Your task to perform on an android device: turn on javascript in the chrome app Image 0: 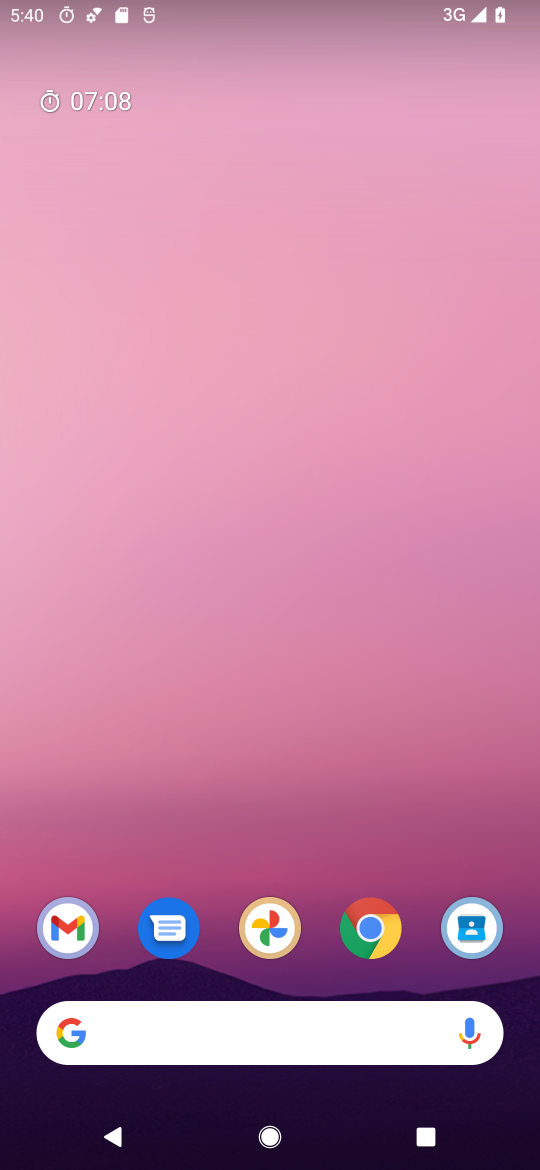
Step 0: click (374, 931)
Your task to perform on an android device: turn on javascript in the chrome app Image 1: 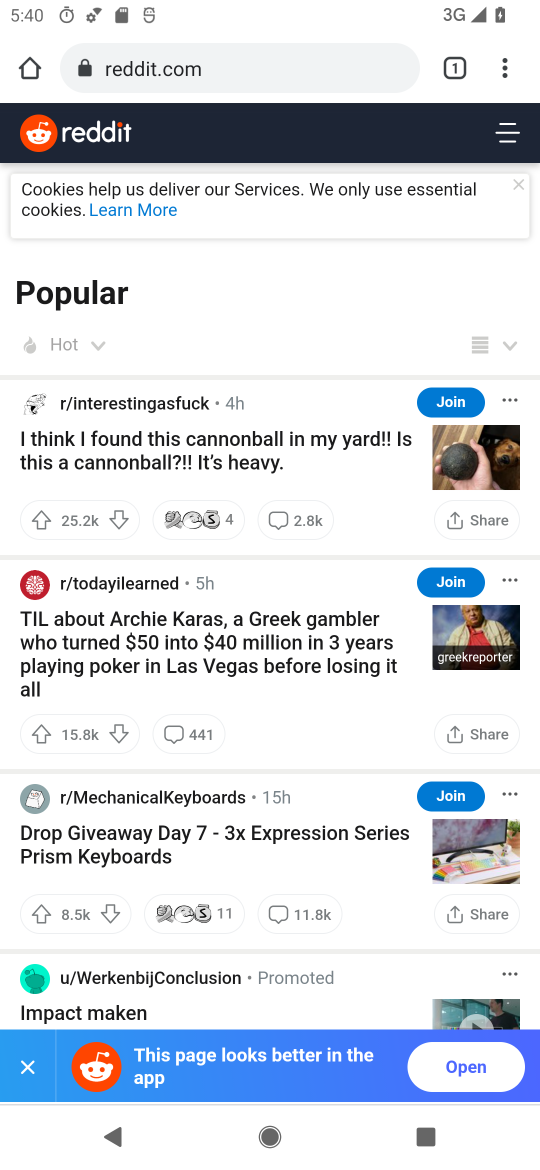
Step 1: click (505, 71)
Your task to perform on an android device: turn on javascript in the chrome app Image 2: 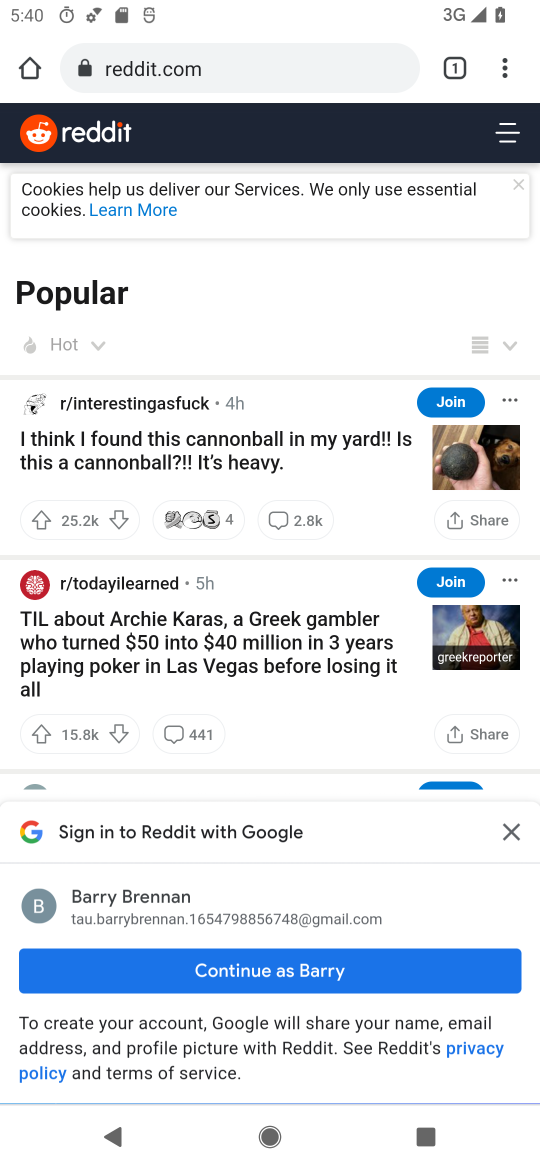
Step 2: click (306, 978)
Your task to perform on an android device: turn on javascript in the chrome app Image 3: 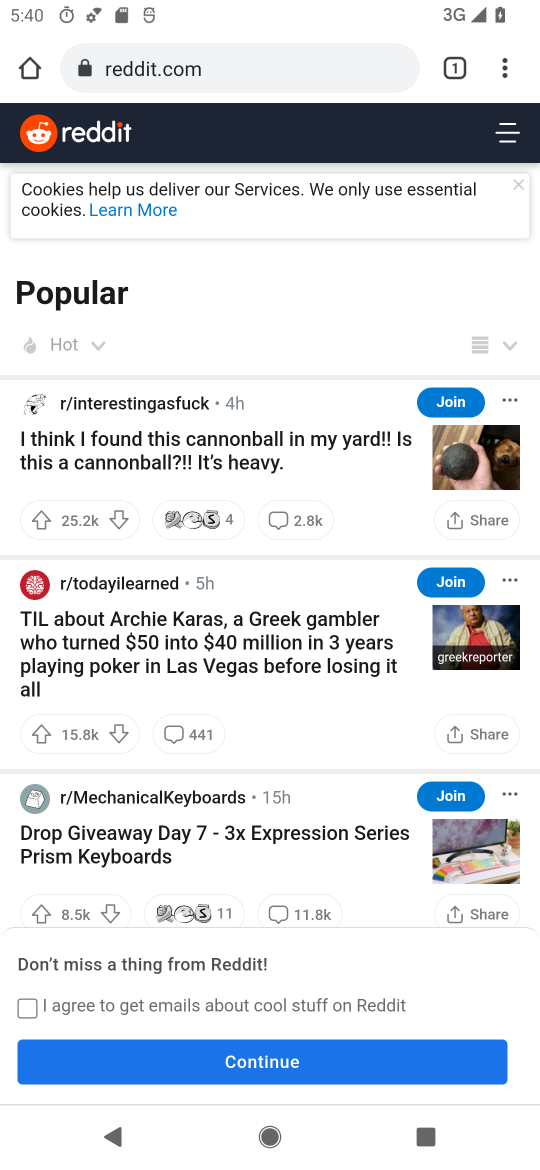
Step 3: click (496, 74)
Your task to perform on an android device: turn on javascript in the chrome app Image 4: 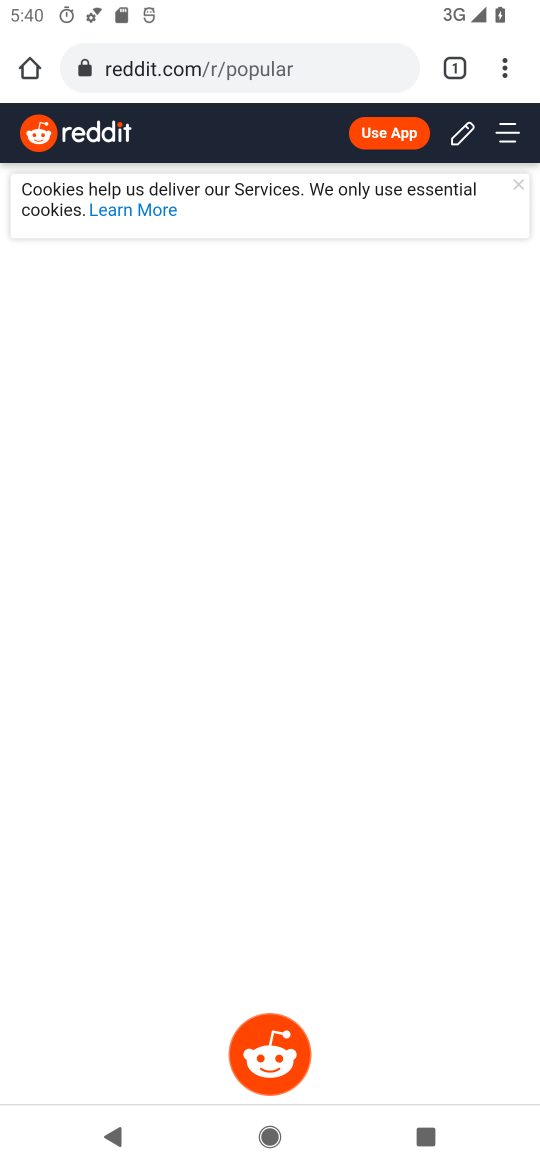
Step 4: click (504, 65)
Your task to perform on an android device: turn on javascript in the chrome app Image 5: 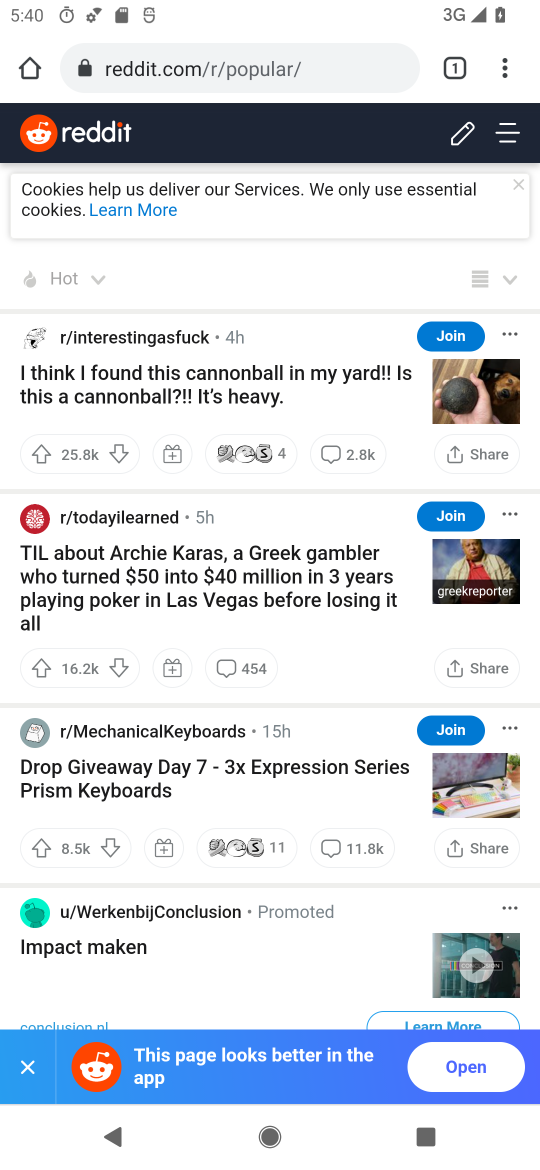
Step 5: click (519, 77)
Your task to perform on an android device: turn on javascript in the chrome app Image 6: 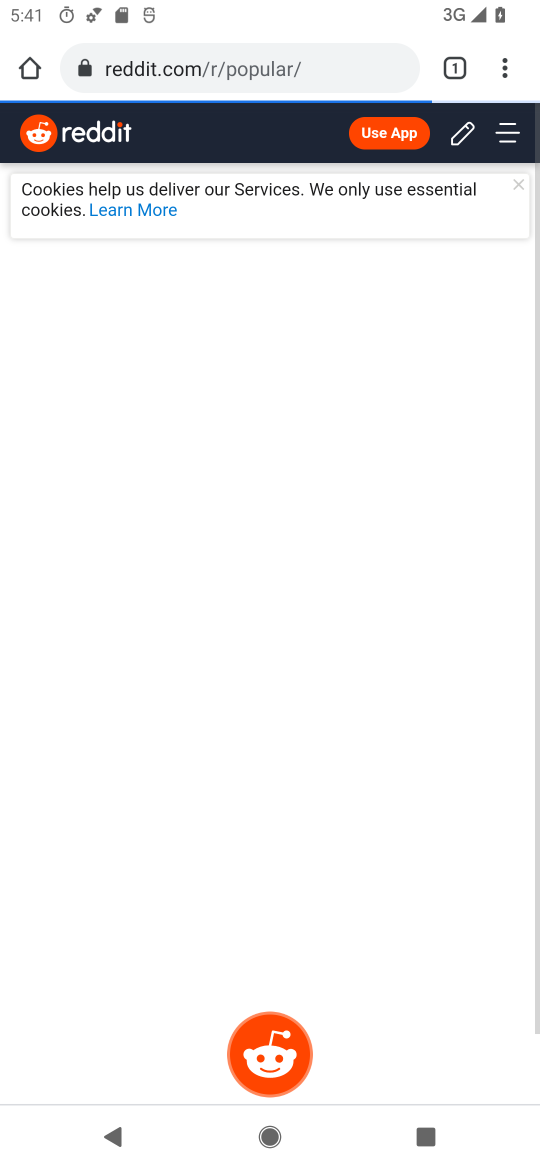
Step 6: click (514, 77)
Your task to perform on an android device: turn on javascript in the chrome app Image 7: 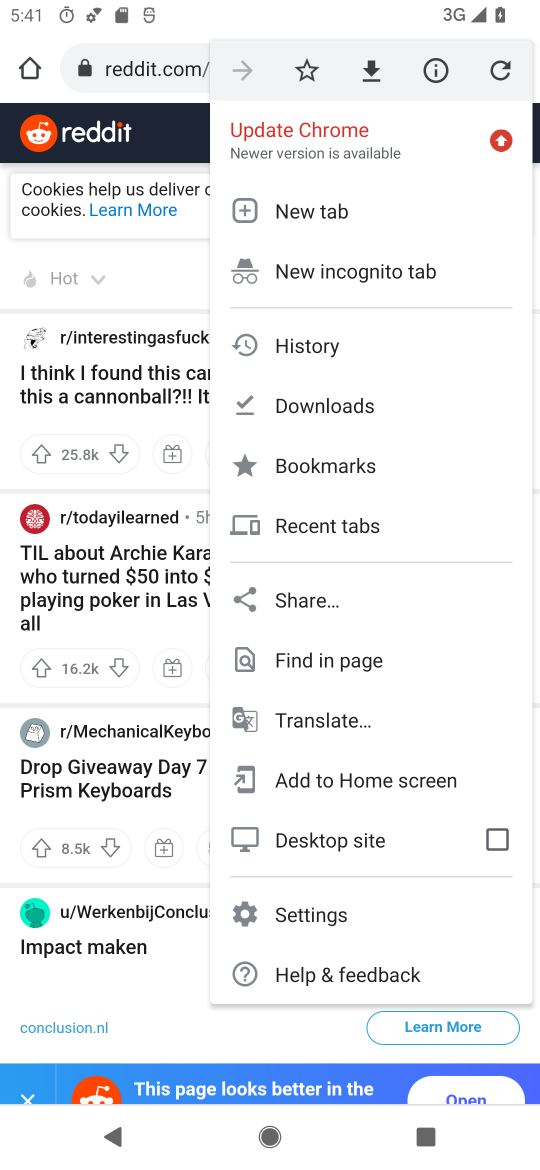
Step 7: click (318, 915)
Your task to perform on an android device: turn on javascript in the chrome app Image 8: 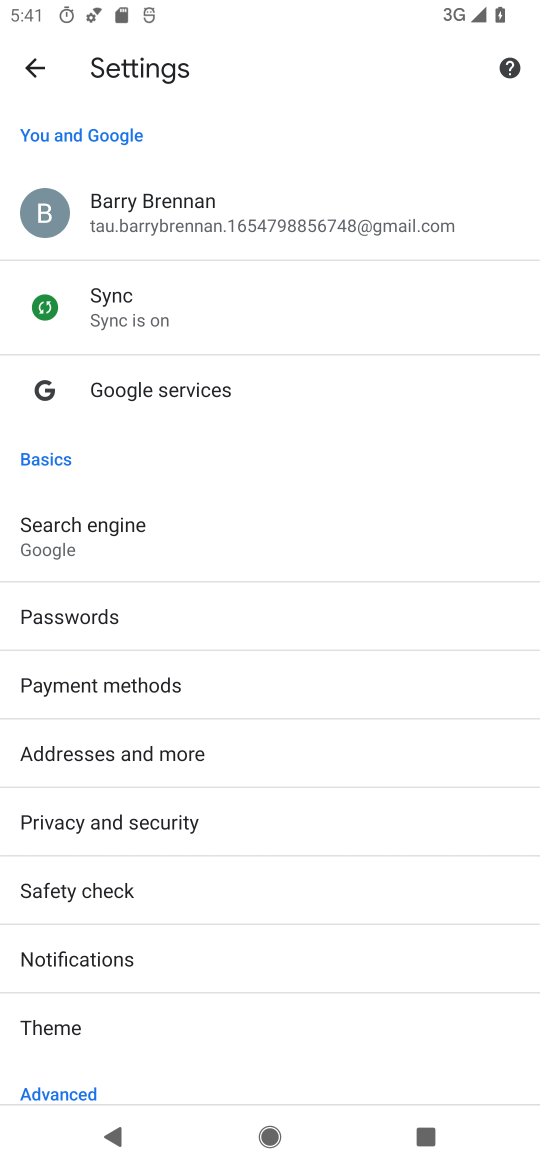
Step 8: drag from (132, 892) to (154, 420)
Your task to perform on an android device: turn on javascript in the chrome app Image 9: 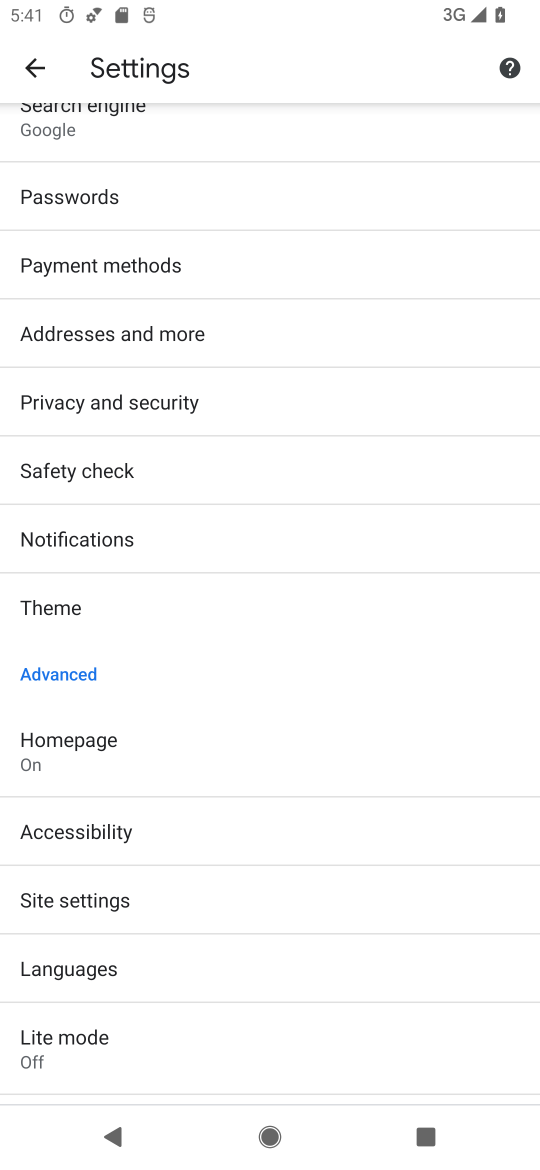
Step 9: click (96, 895)
Your task to perform on an android device: turn on javascript in the chrome app Image 10: 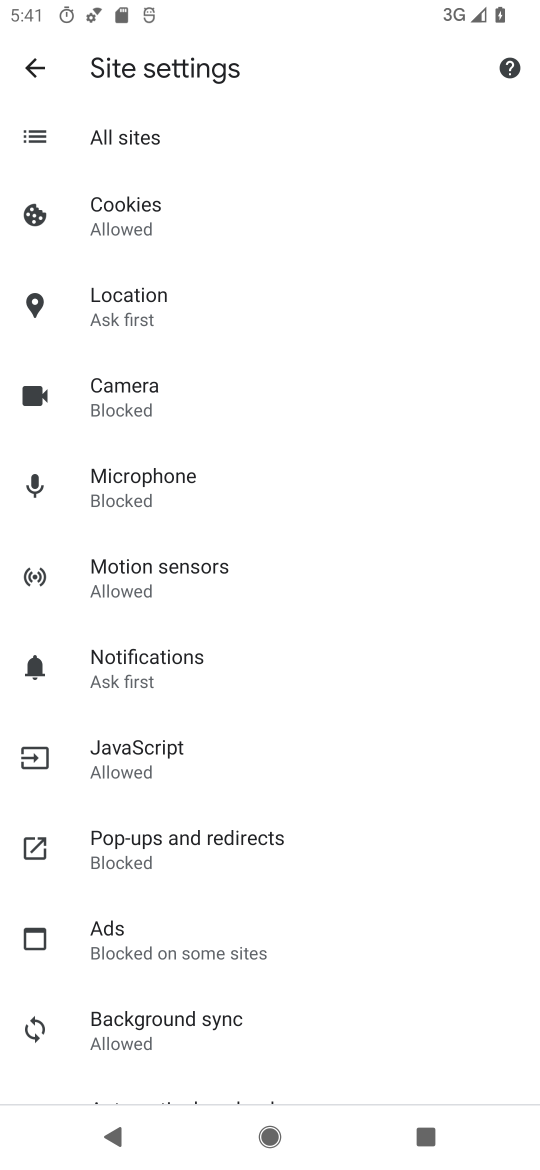
Step 10: click (147, 762)
Your task to perform on an android device: turn on javascript in the chrome app Image 11: 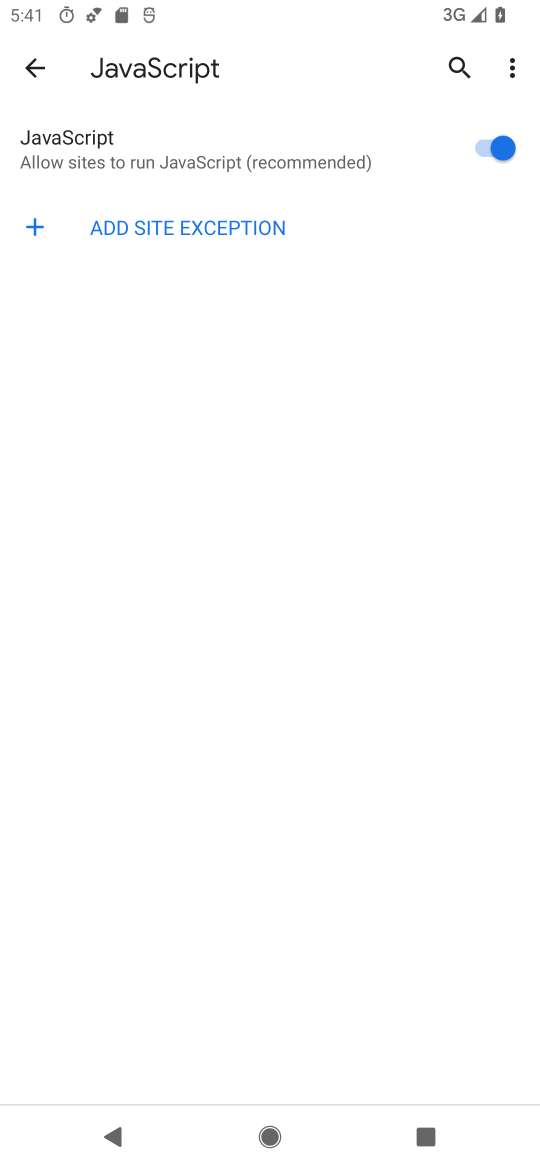
Step 11: task complete